Your task to perform on an android device: Toggle the flashlight Image 0: 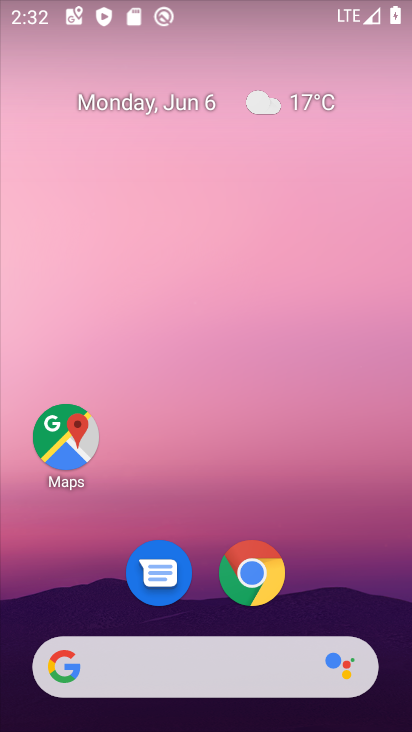
Step 0: drag from (224, 23) to (229, 384)
Your task to perform on an android device: Toggle the flashlight Image 1: 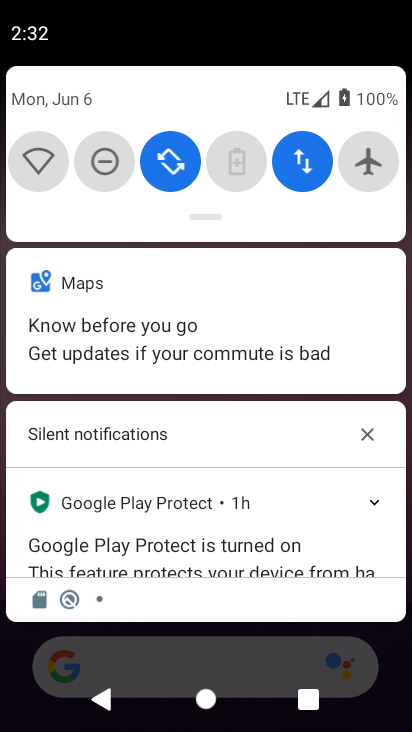
Step 1: drag from (196, 83) to (224, 340)
Your task to perform on an android device: Toggle the flashlight Image 2: 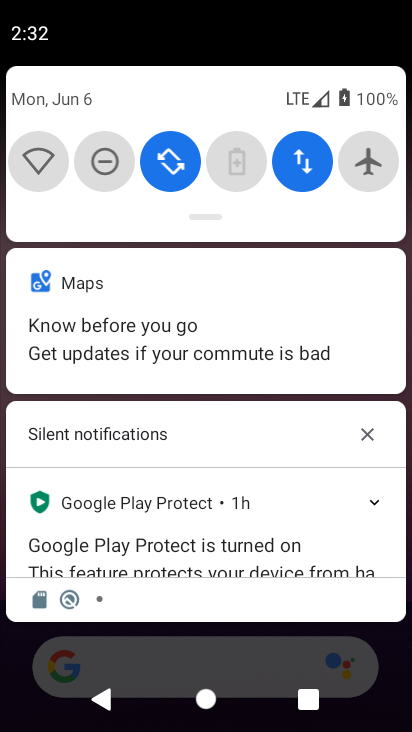
Step 2: drag from (203, 109) to (214, 359)
Your task to perform on an android device: Toggle the flashlight Image 3: 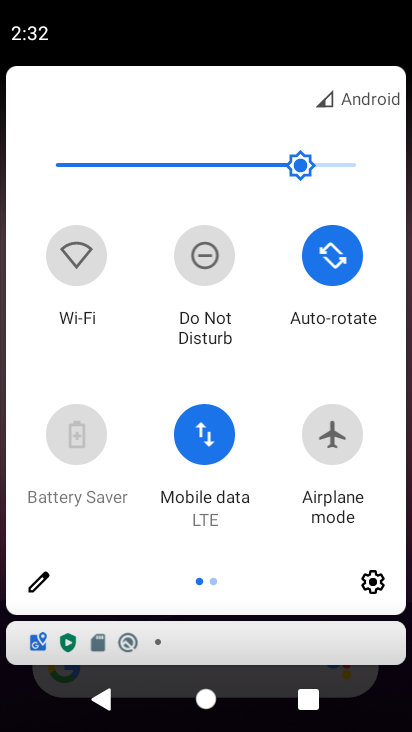
Step 3: click (29, 583)
Your task to perform on an android device: Toggle the flashlight Image 4: 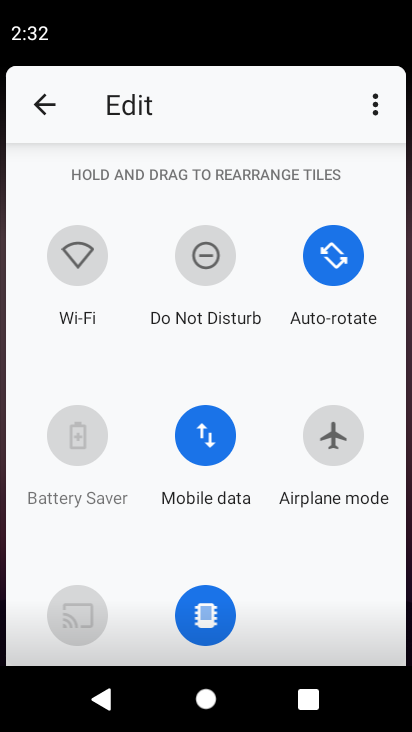
Step 4: task complete